Your task to perform on an android device: open app "LinkedIn" Image 0: 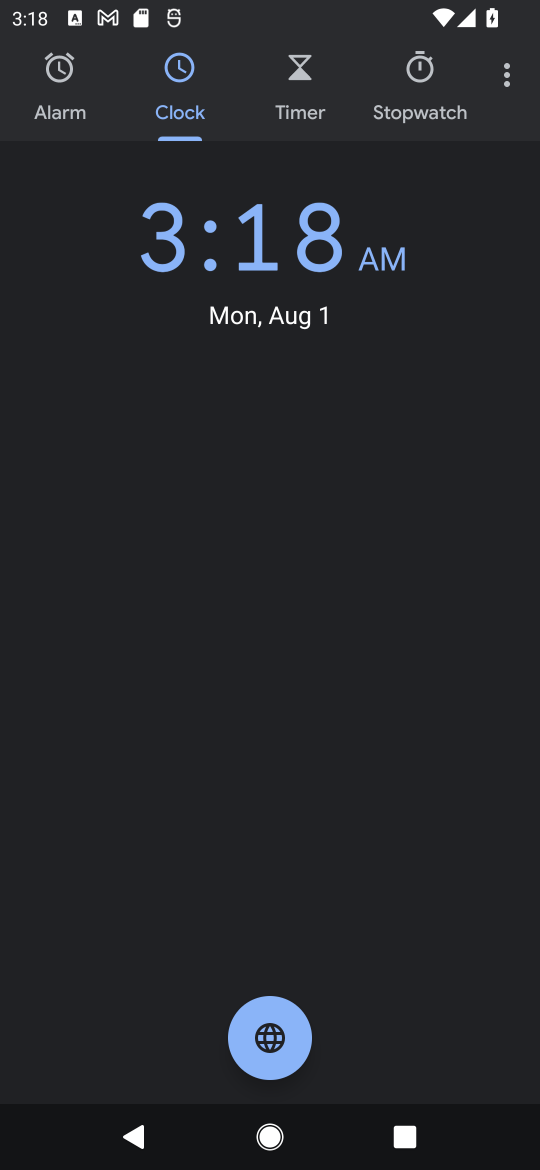
Step 0: press home button
Your task to perform on an android device: open app "LinkedIn" Image 1: 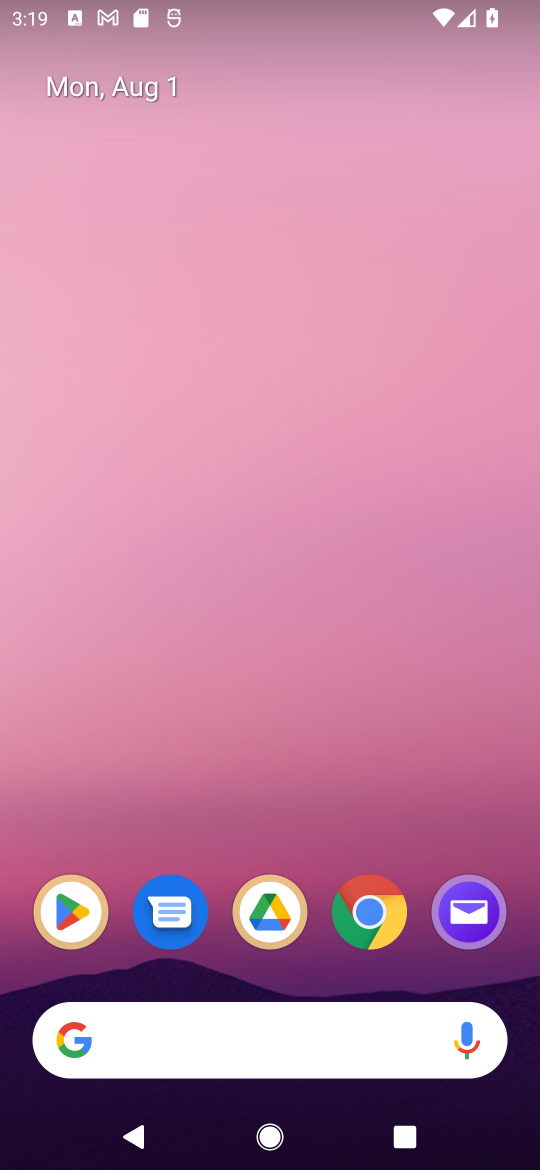
Step 1: click (79, 919)
Your task to perform on an android device: open app "LinkedIn" Image 2: 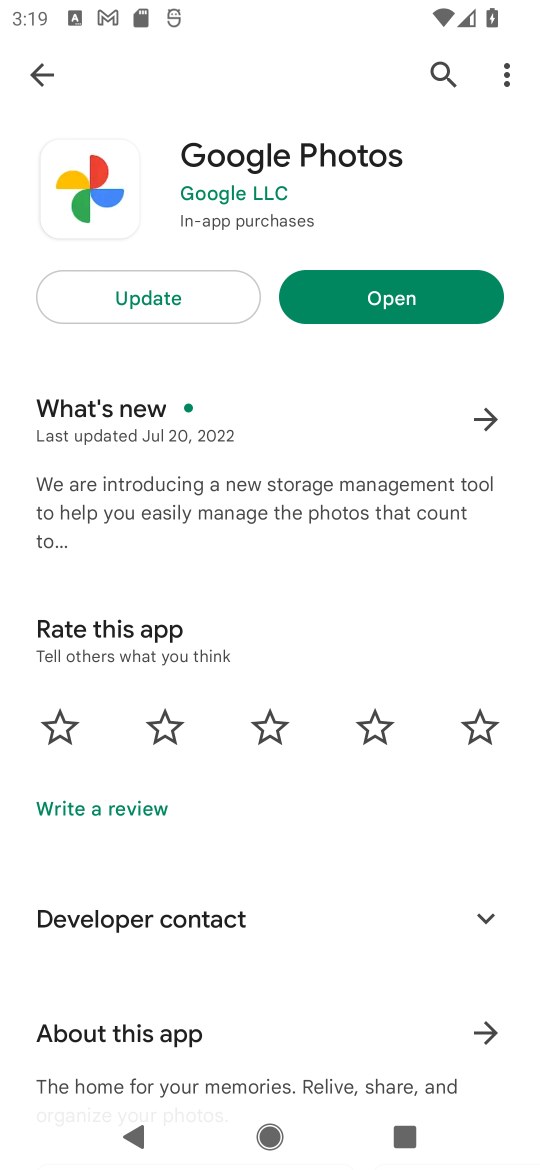
Step 2: click (451, 74)
Your task to perform on an android device: open app "LinkedIn" Image 3: 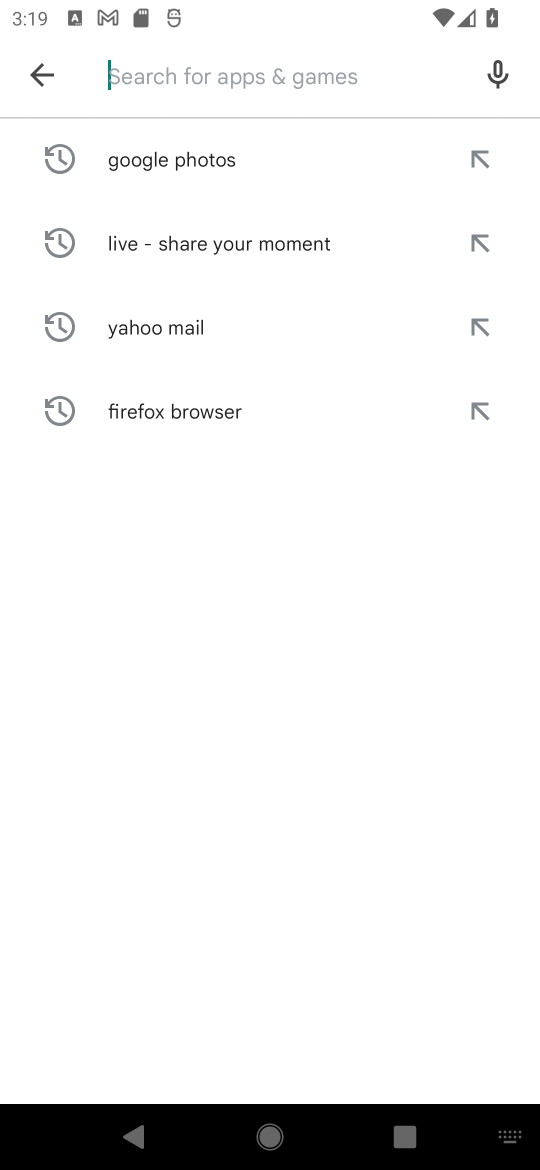
Step 3: click (312, 88)
Your task to perform on an android device: open app "LinkedIn" Image 4: 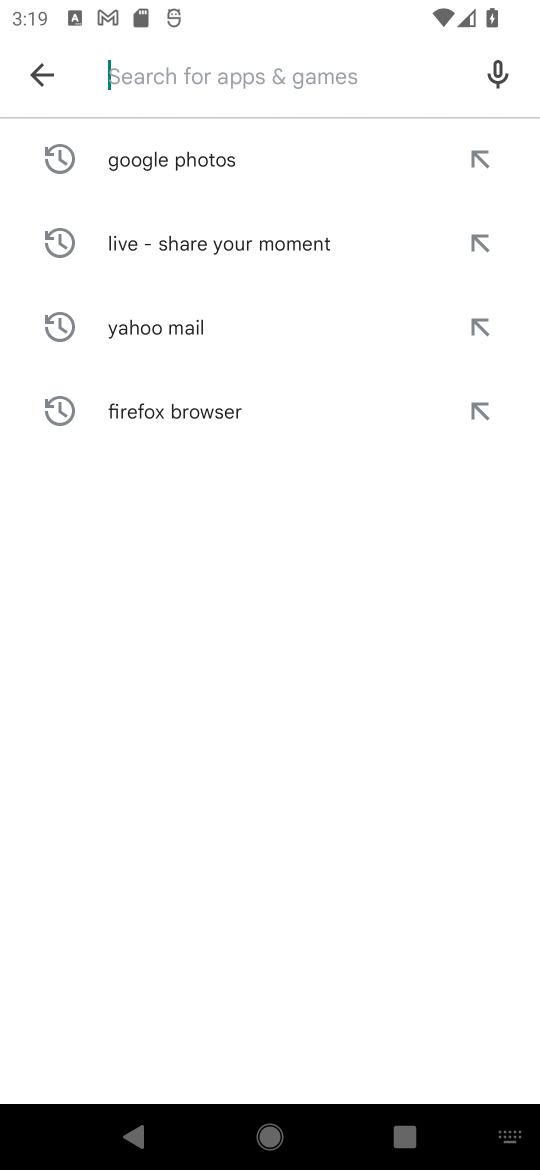
Step 4: type "LinkedIn"
Your task to perform on an android device: open app "LinkedIn" Image 5: 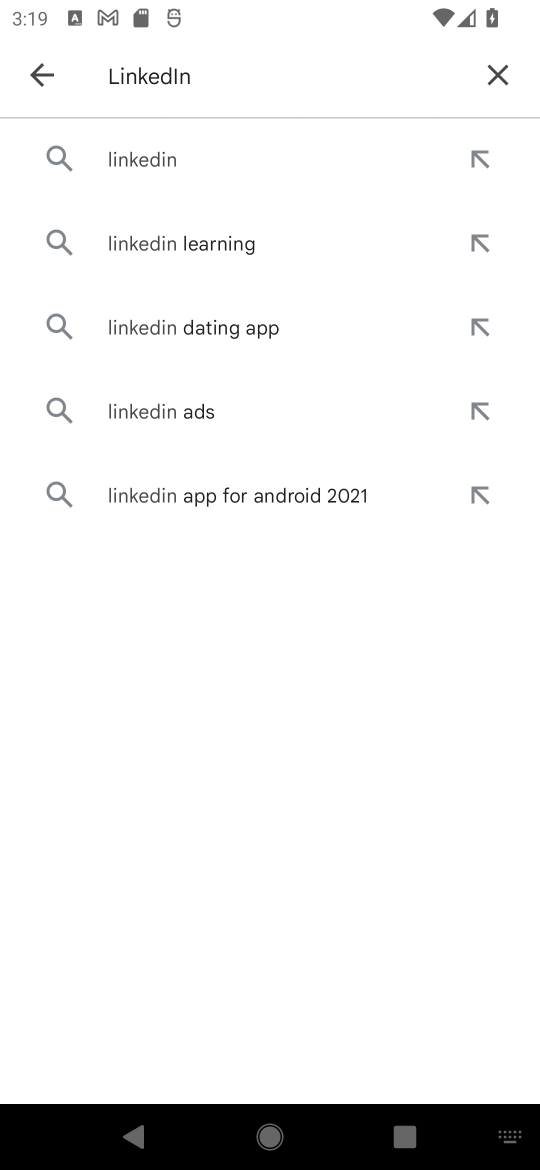
Step 5: click (157, 163)
Your task to perform on an android device: open app "LinkedIn" Image 6: 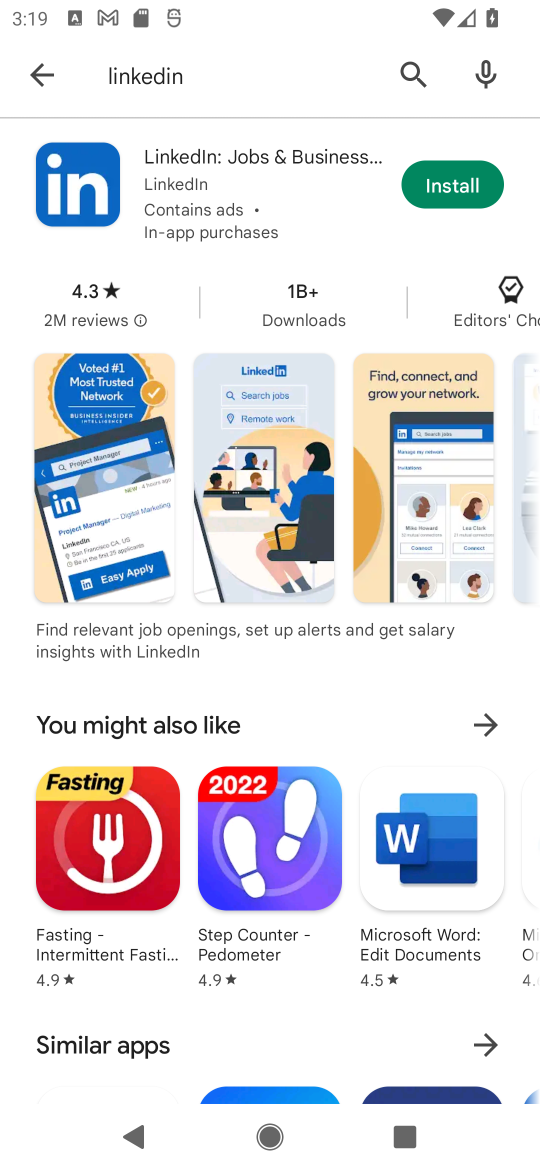
Step 6: task complete